Your task to perform on an android device: add a contact in the contacts app Image 0: 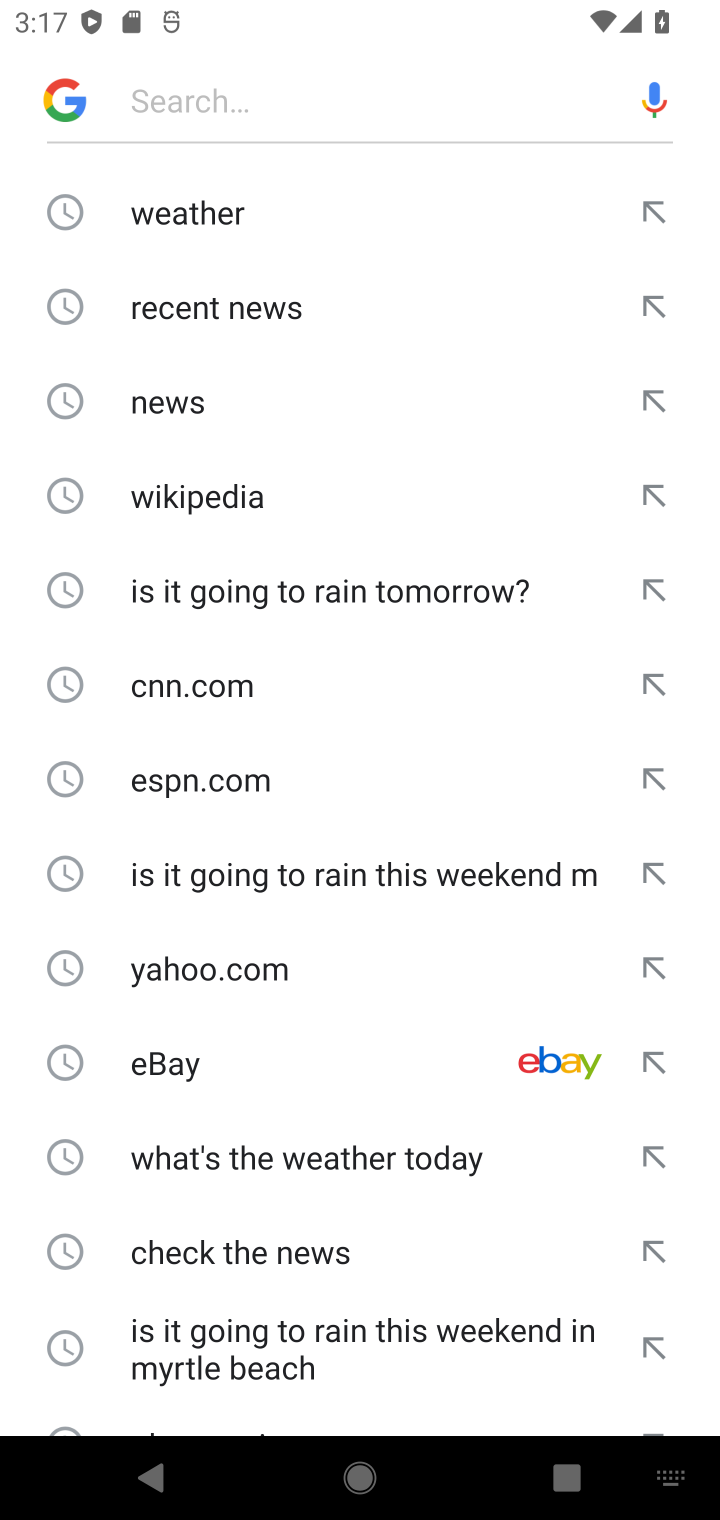
Step 0: press home button
Your task to perform on an android device: add a contact in the contacts app Image 1: 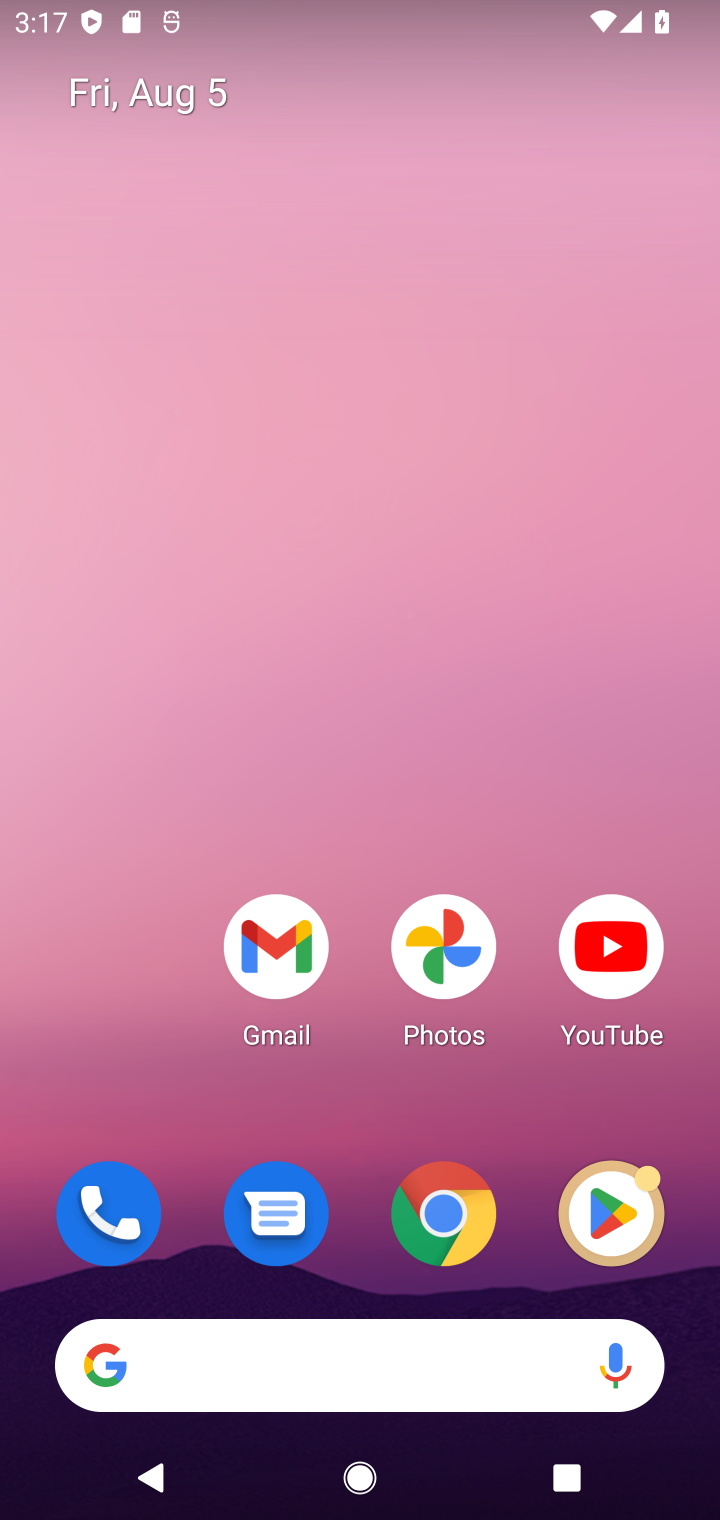
Step 1: drag from (187, 1000) to (296, 46)
Your task to perform on an android device: add a contact in the contacts app Image 2: 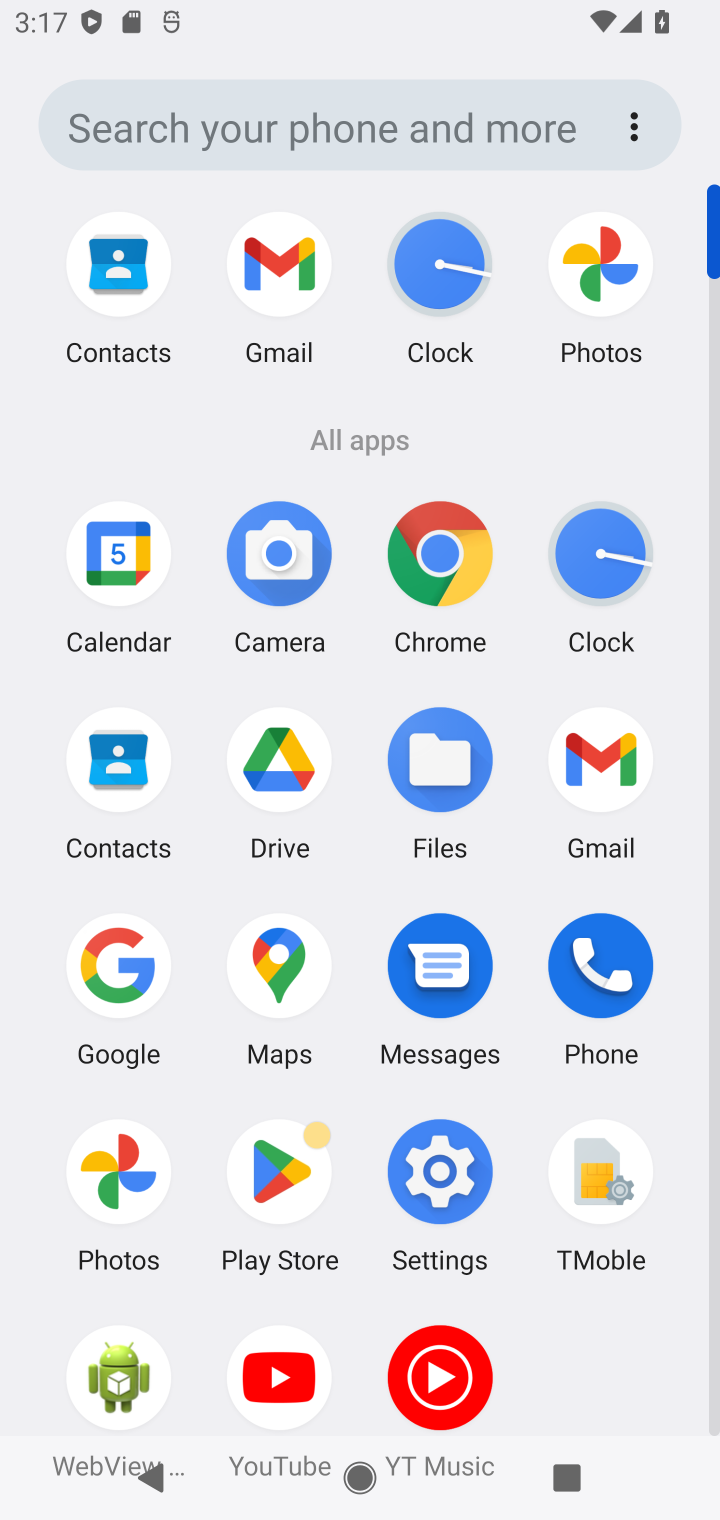
Step 2: click (106, 763)
Your task to perform on an android device: add a contact in the contacts app Image 3: 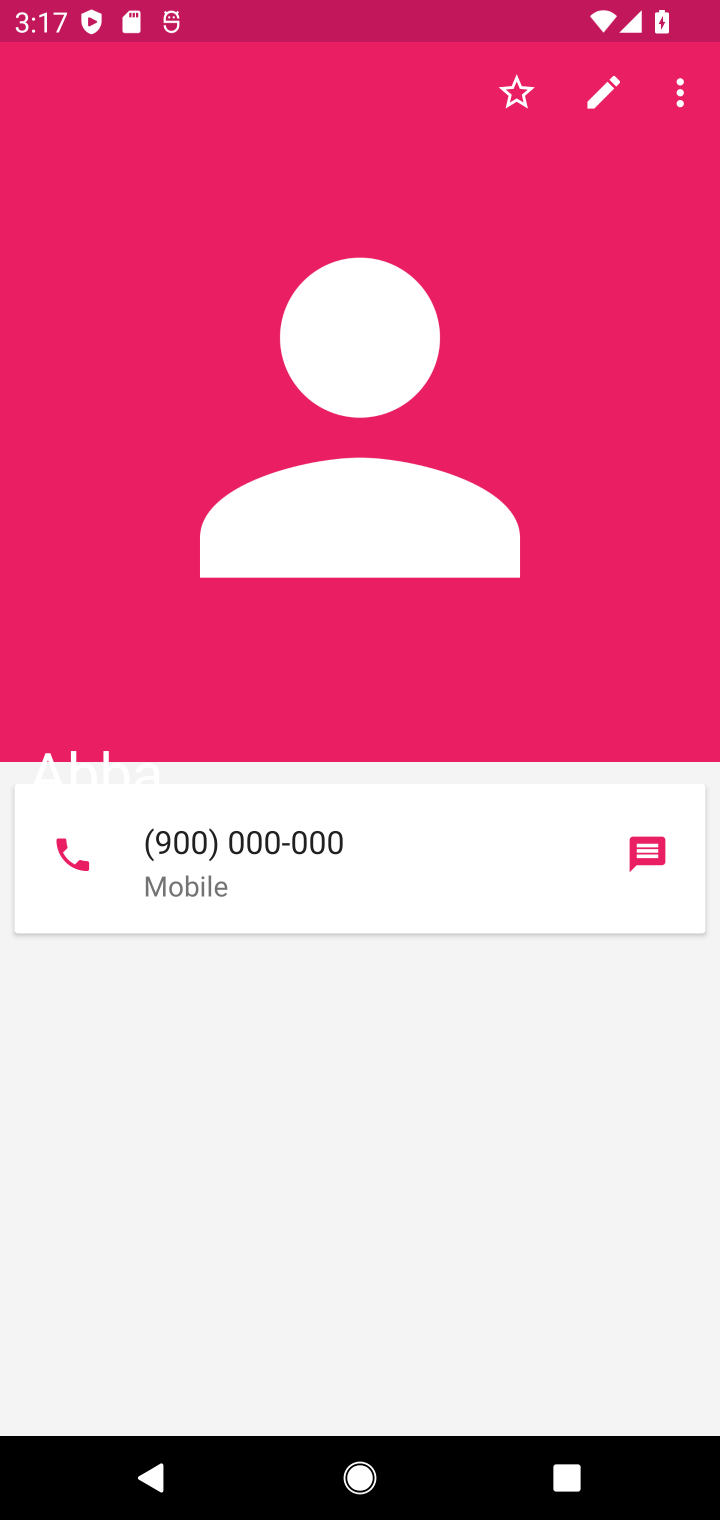
Step 3: press back button
Your task to perform on an android device: add a contact in the contacts app Image 4: 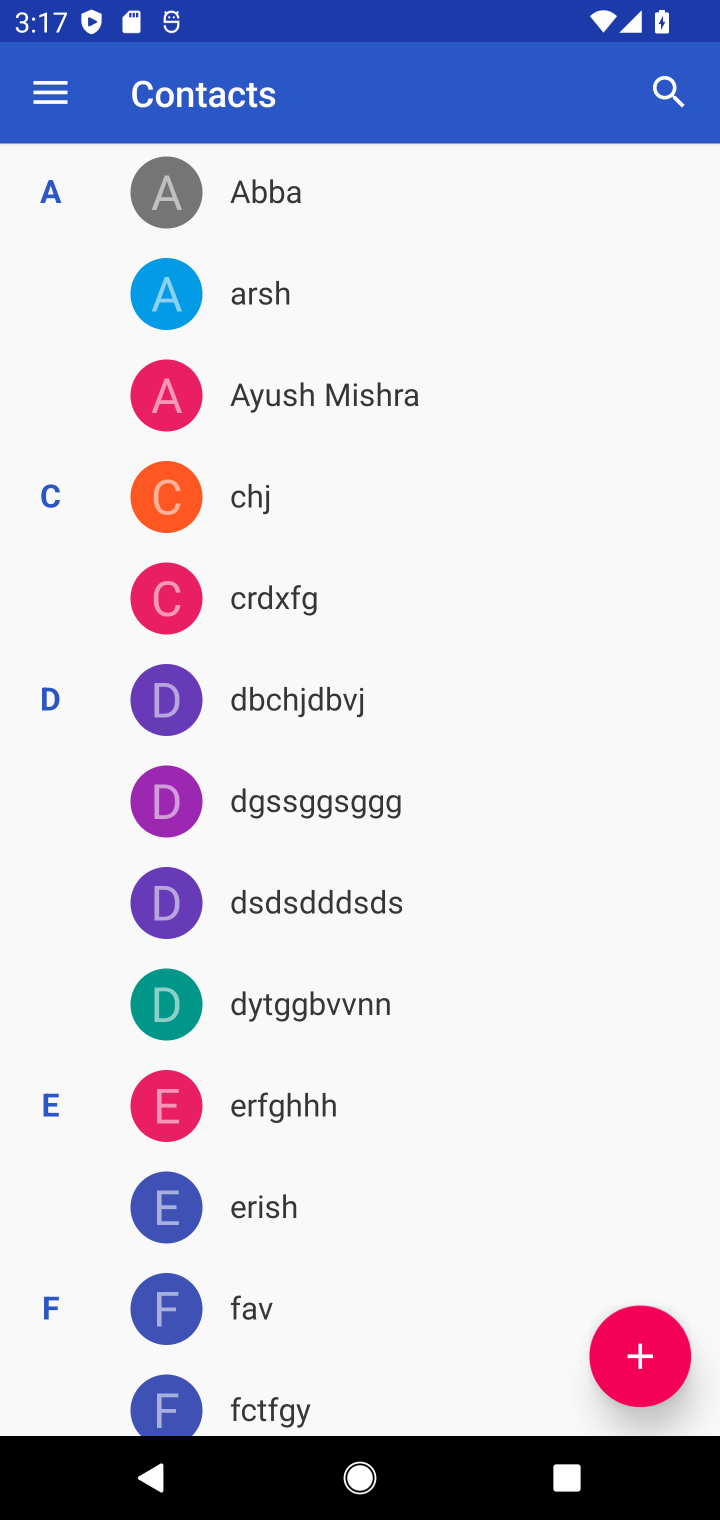
Step 4: click (658, 1344)
Your task to perform on an android device: add a contact in the contacts app Image 5: 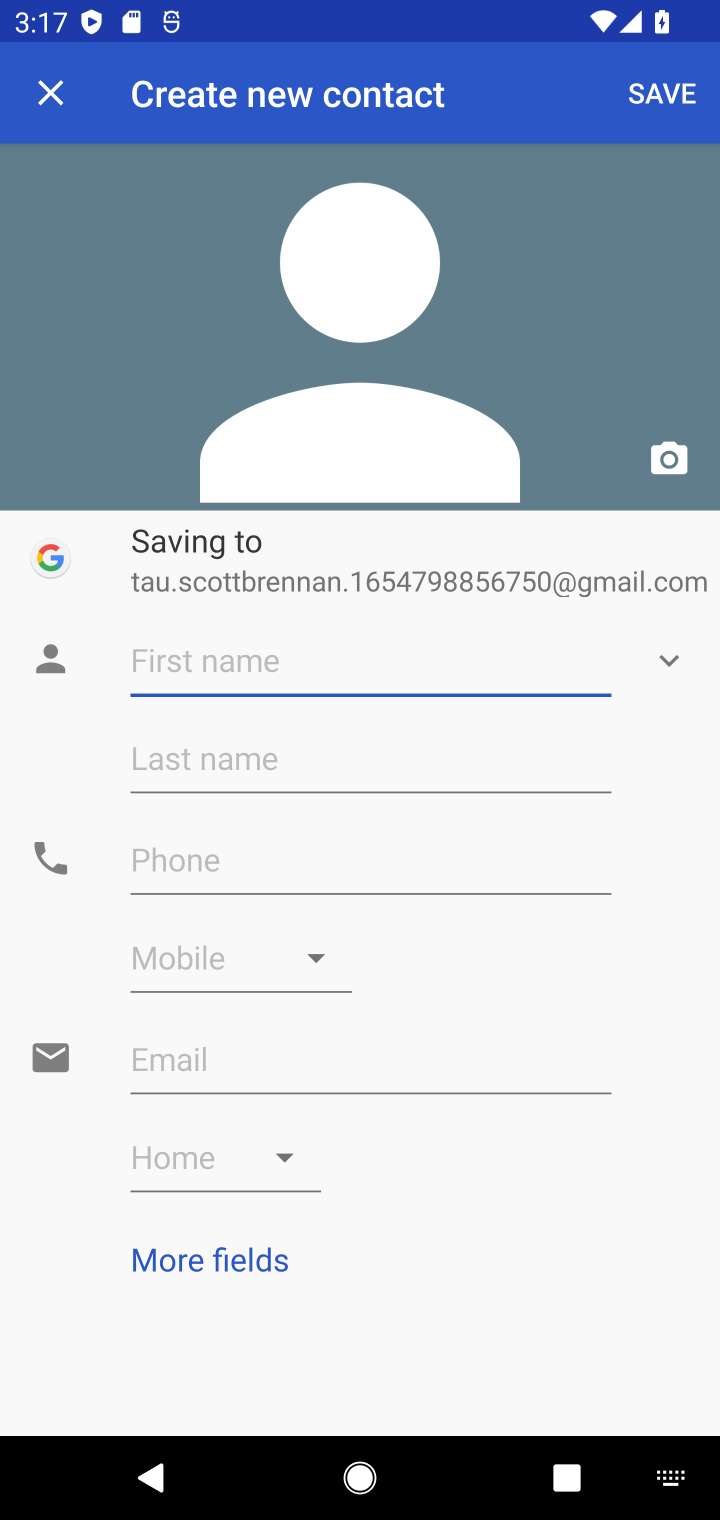
Step 5: type "Abha"
Your task to perform on an android device: add a contact in the contacts app Image 6: 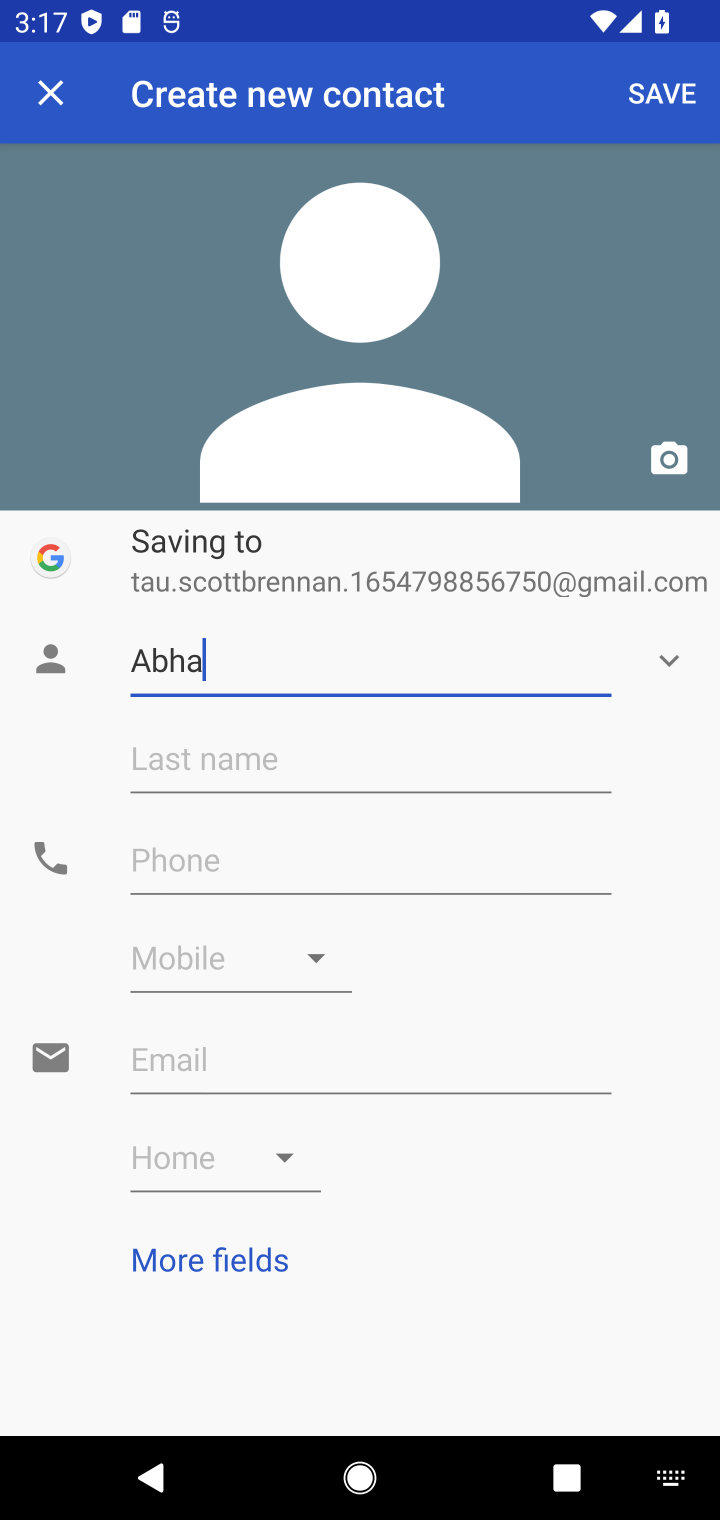
Step 6: click (373, 868)
Your task to perform on an android device: add a contact in the contacts app Image 7: 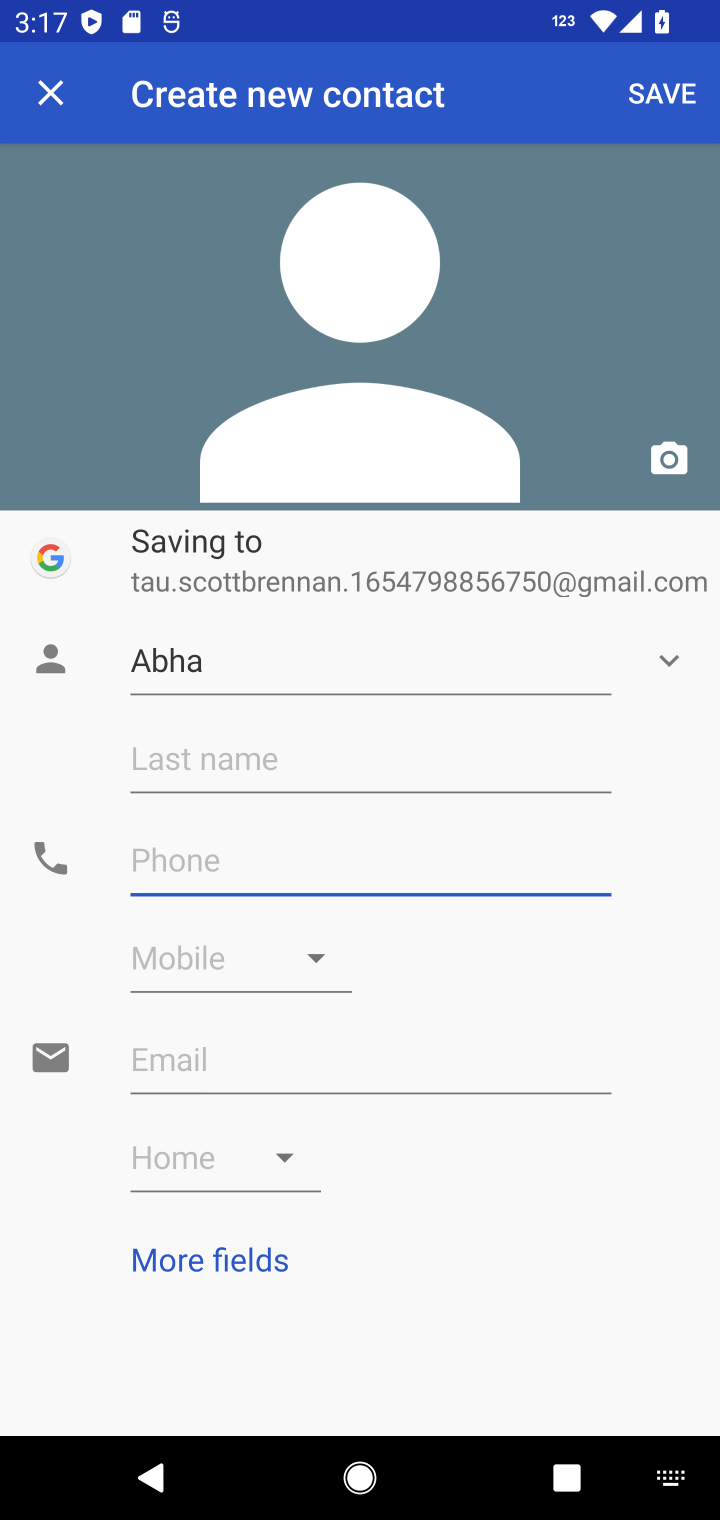
Step 7: type "9000000001"
Your task to perform on an android device: add a contact in the contacts app Image 8: 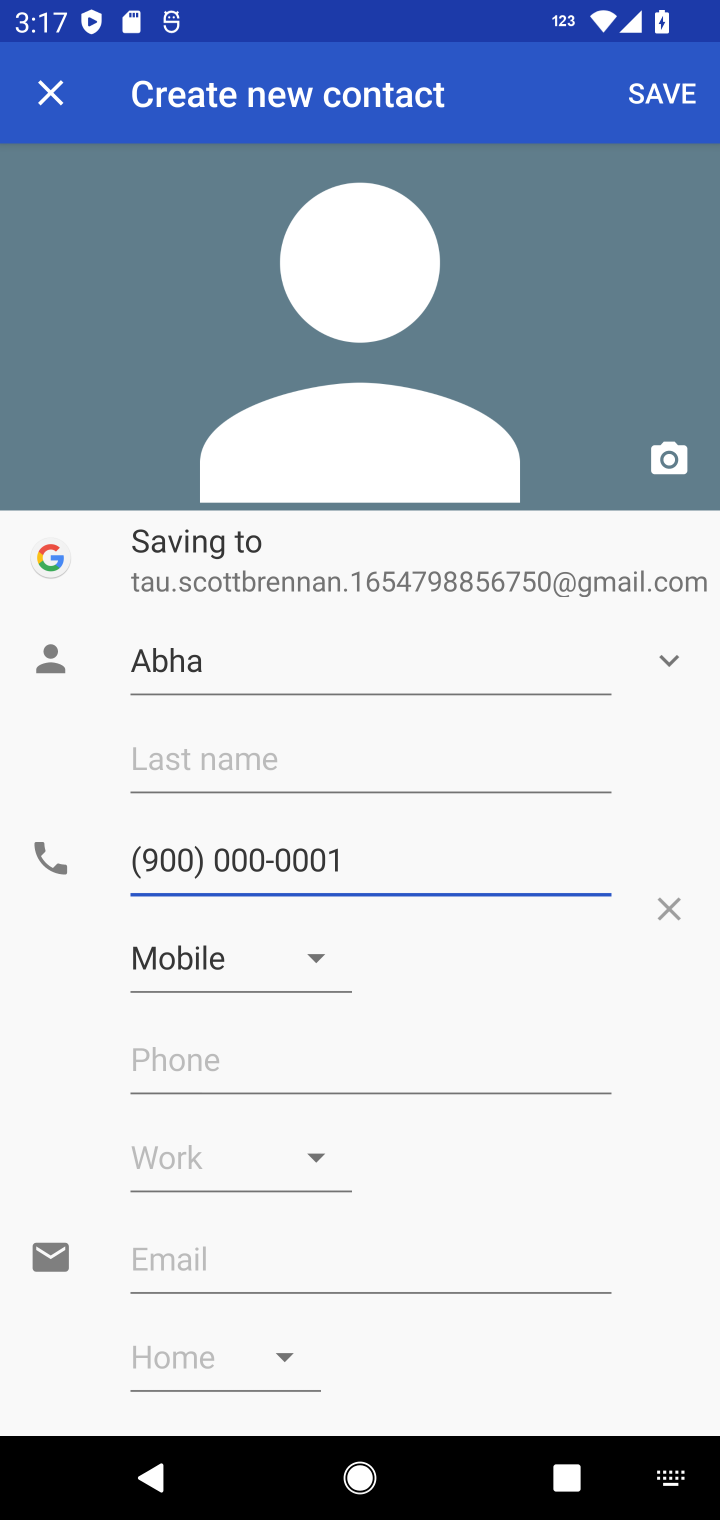
Step 8: click (685, 95)
Your task to perform on an android device: add a contact in the contacts app Image 9: 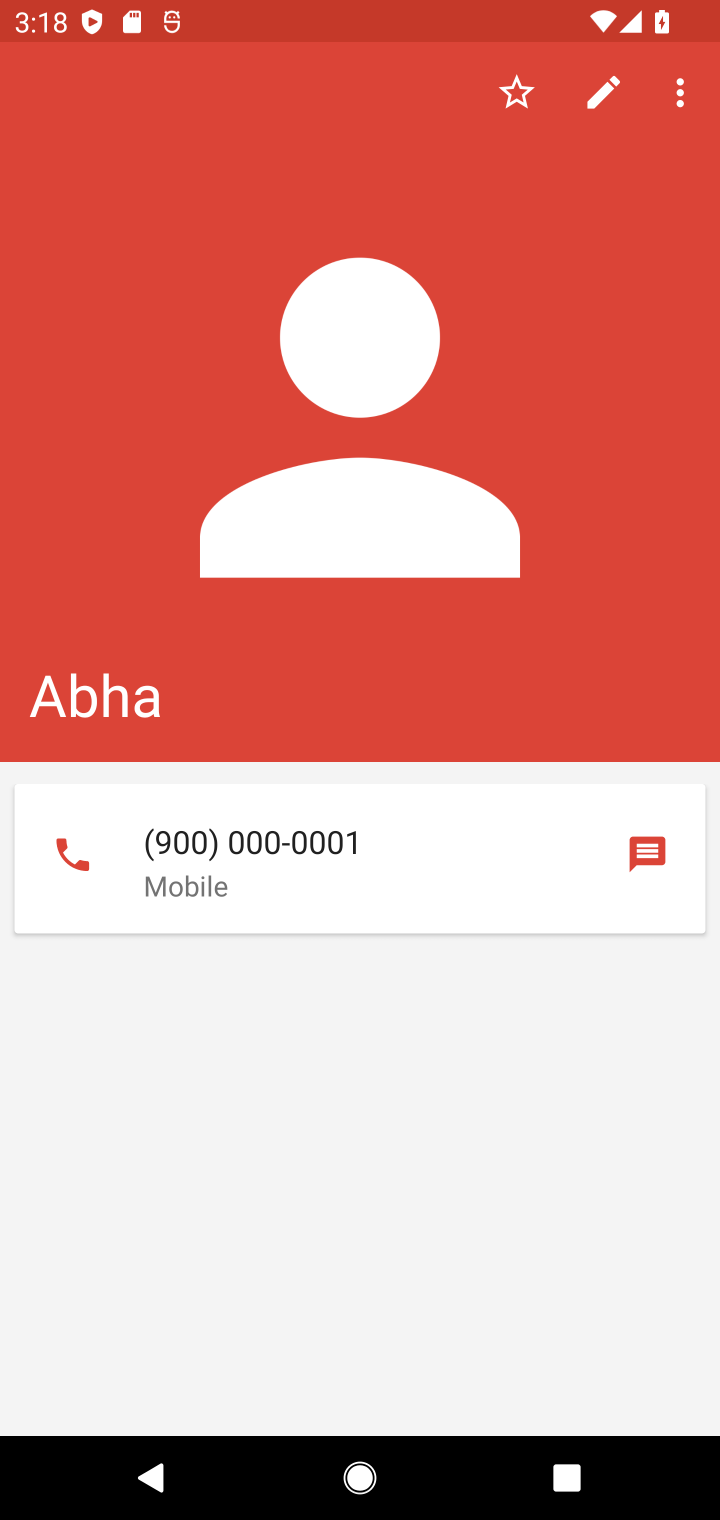
Step 9: task complete